Your task to perform on an android device: Search for "bose soundlink" on bestbuy.com, select the first entry, add it to the cart, then select checkout. Image 0: 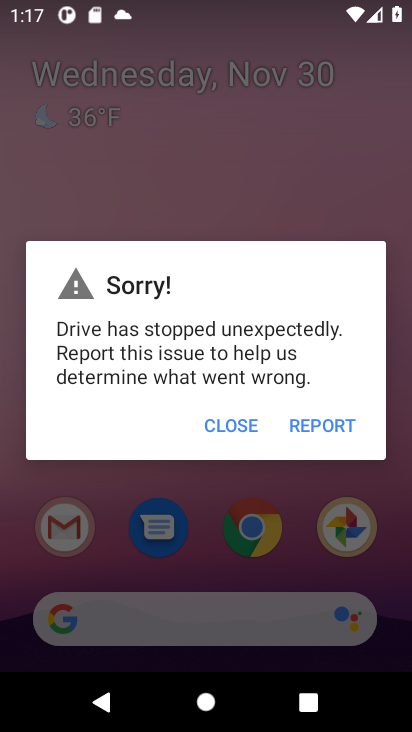
Step 0: click (247, 420)
Your task to perform on an android device: Search for "bose soundlink" on bestbuy.com, select the first entry, add it to the cart, then select checkout. Image 1: 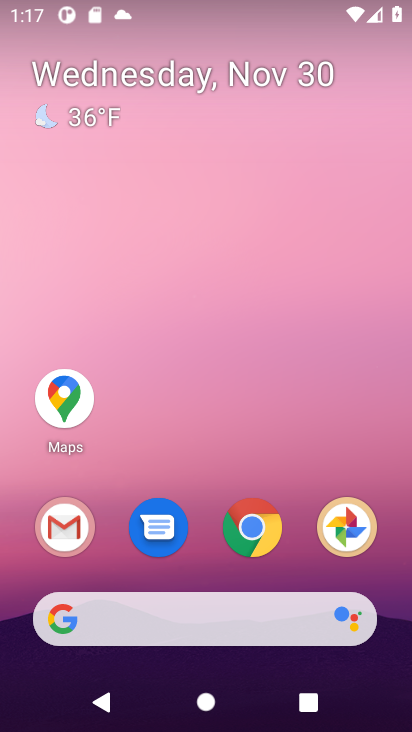
Step 1: click (244, 549)
Your task to perform on an android device: Search for "bose soundlink" on bestbuy.com, select the first entry, add it to the cart, then select checkout. Image 2: 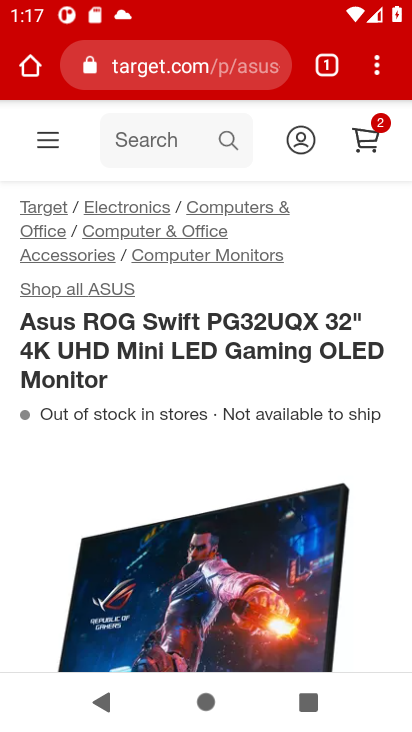
Step 2: click (194, 140)
Your task to perform on an android device: Search for "bose soundlink" on bestbuy.com, select the first entry, add it to the cart, then select checkout. Image 3: 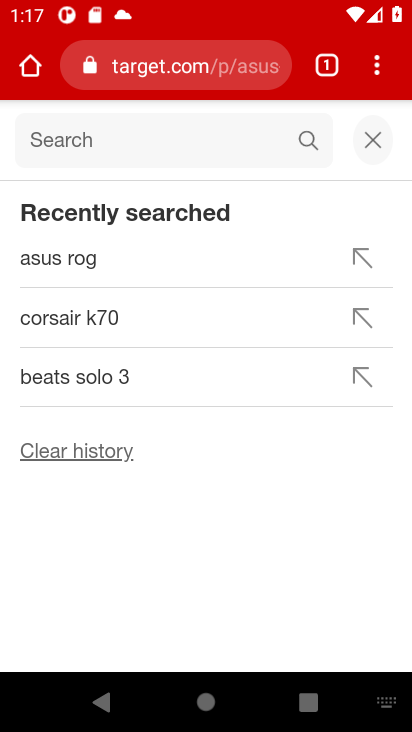
Step 3: type "bestbuy"
Your task to perform on an android device: Search for "bose soundlink" on bestbuy.com, select the first entry, add it to the cart, then select checkout. Image 4: 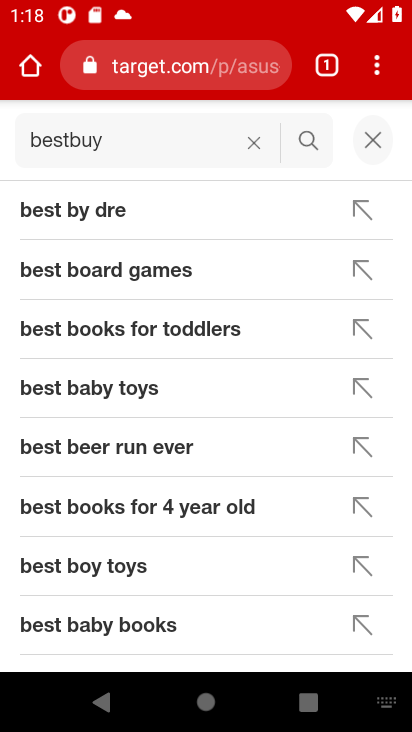
Step 4: task complete